Your task to perform on an android device: turn pop-ups on in chrome Image 0: 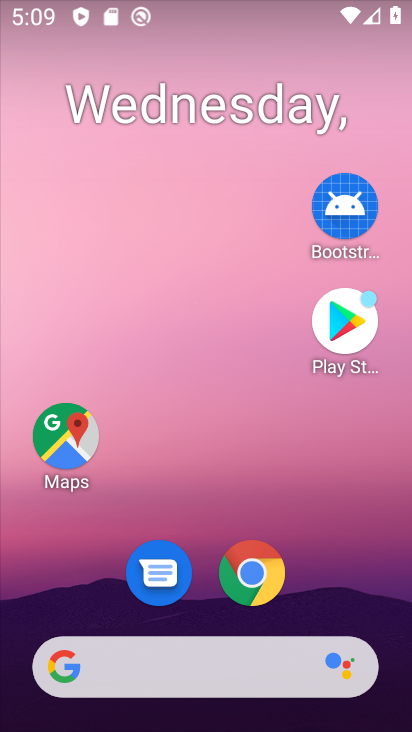
Step 0: drag from (330, 578) to (230, 119)
Your task to perform on an android device: turn pop-ups on in chrome Image 1: 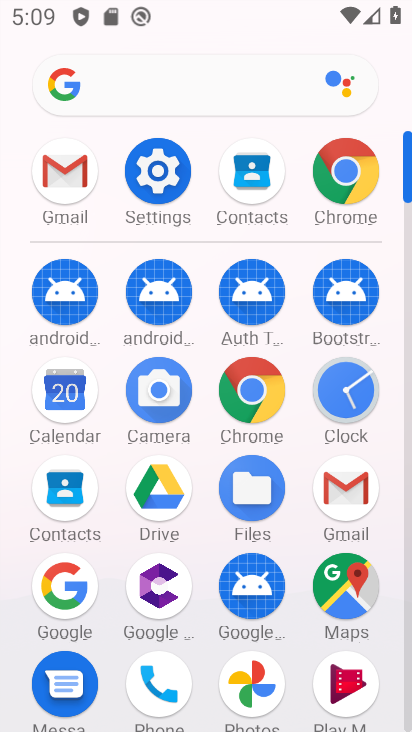
Step 1: click (327, 167)
Your task to perform on an android device: turn pop-ups on in chrome Image 2: 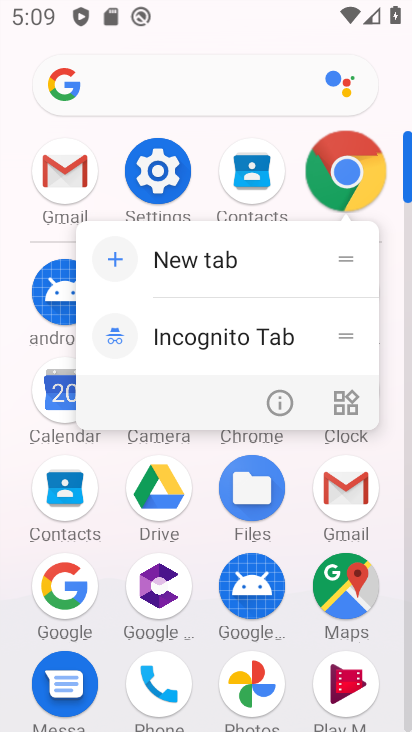
Step 2: click (279, 395)
Your task to perform on an android device: turn pop-ups on in chrome Image 3: 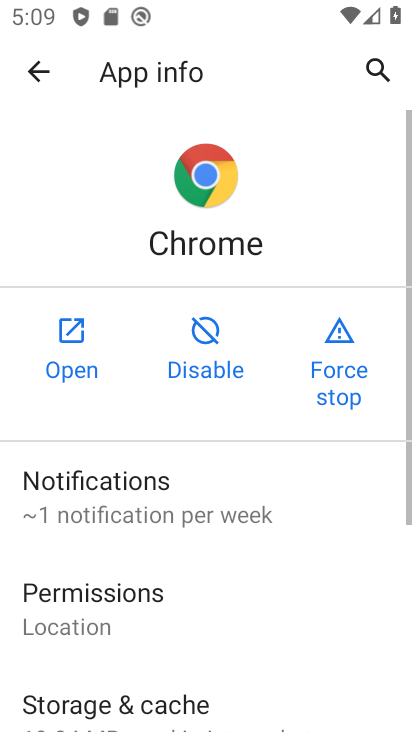
Step 3: drag from (162, 608) to (170, 189)
Your task to perform on an android device: turn pop-ups on in chrome Image 4: 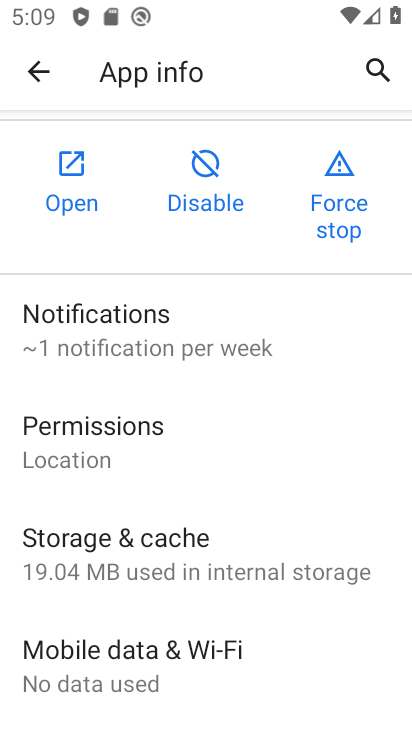
Step 4: drag from (195, 446) to (105, 189)
Your task to perform on an android device: turn pop-ups on in chrome Image 5: 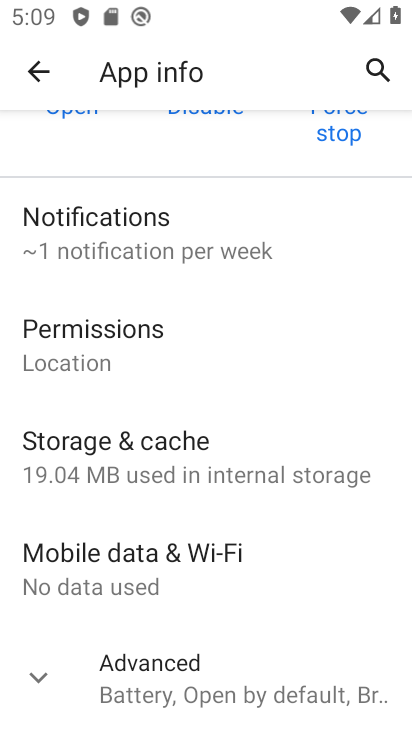
Step 5: click (205, 700)
Your task to perform on an android device: turn pop-ups on in chrome Image 6: 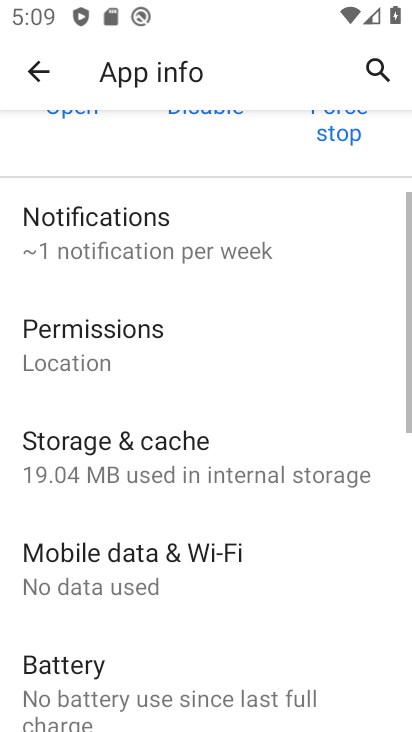
Step 6: drag from (257, 673) to (257, 23)
Your task to perform on an android device: turn pop-ups on in chrome Image 7: 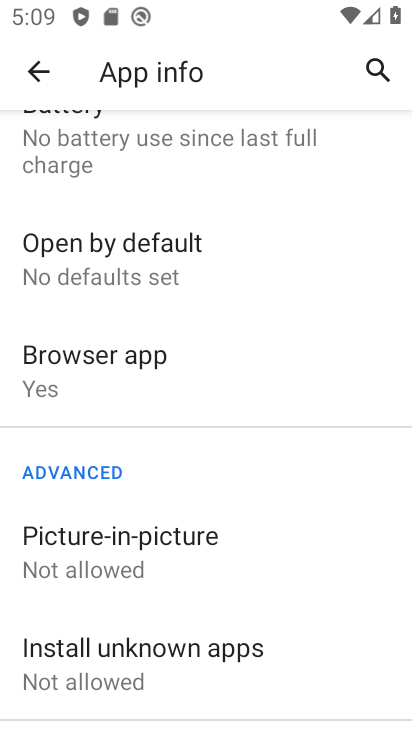
Step 7: click (133, 561)
Your task to perform on an android device: turn pop-ups on in chrome Image 8: 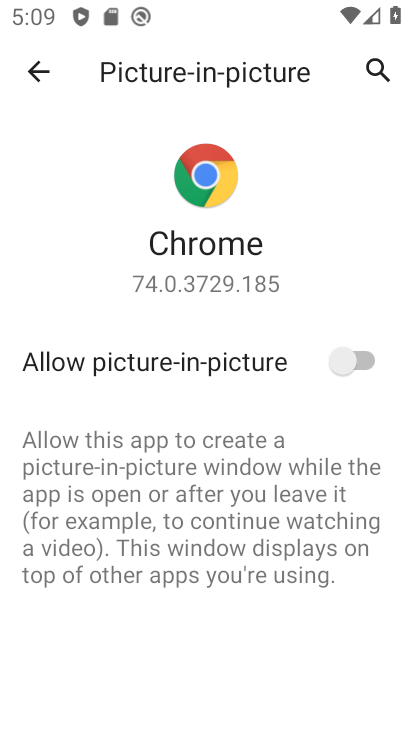
Step 8: click (302, 344)
Your task to perform on an android device: turn pop-ups on in chrome Image 9: 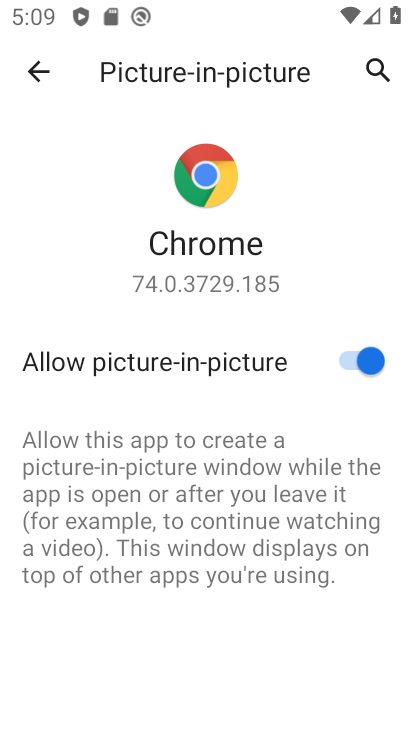
Step 9: task complete